Your task to perform on an android device: Go to wifi settings Image 0: 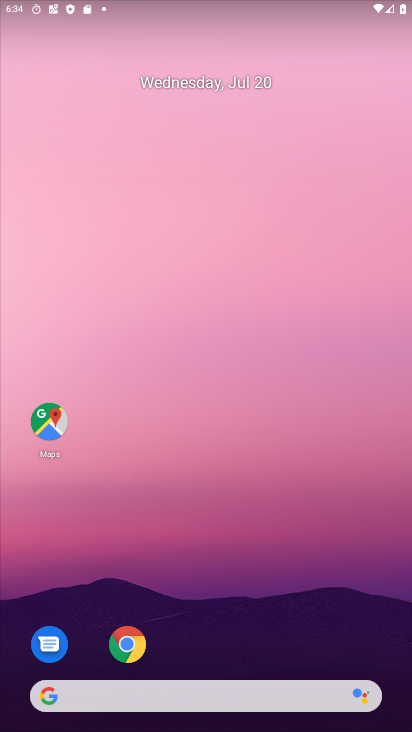
Step 0: press home button
Your task to perform on an android device: Go to wifi settings Image 1: 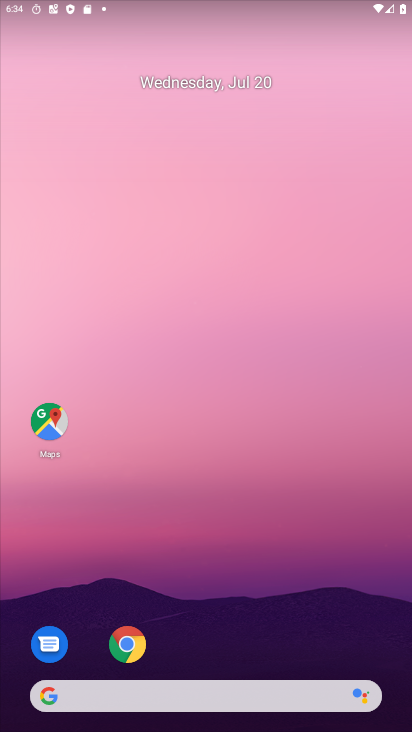
Step 1: drag from (302, 637) to (224, 258)
Your task to perform on an android device: Go to wifi settings Image 2: 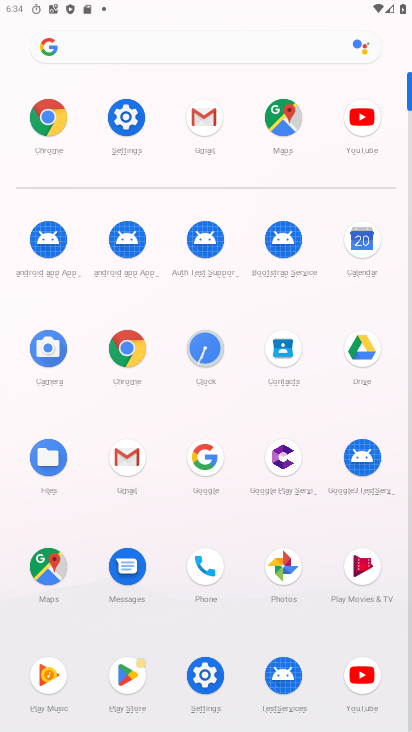
Step 2: click (119, 124)
Your task to perform on an android device: Go to wifi settings Image 3: 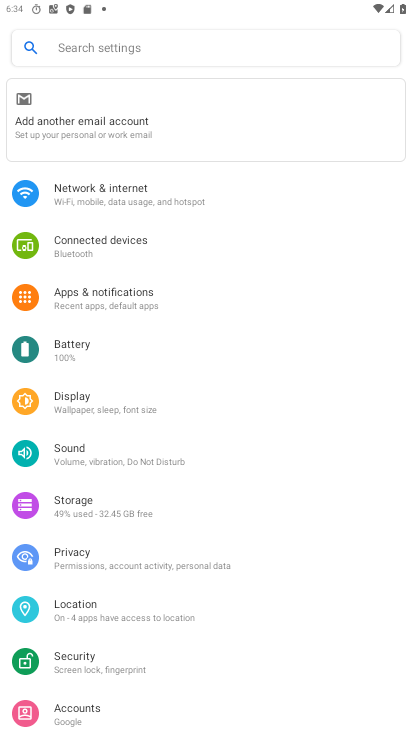
Step 3: click (116, 197)
Your task to perform on an android device: Go to wifi settings Image 4: 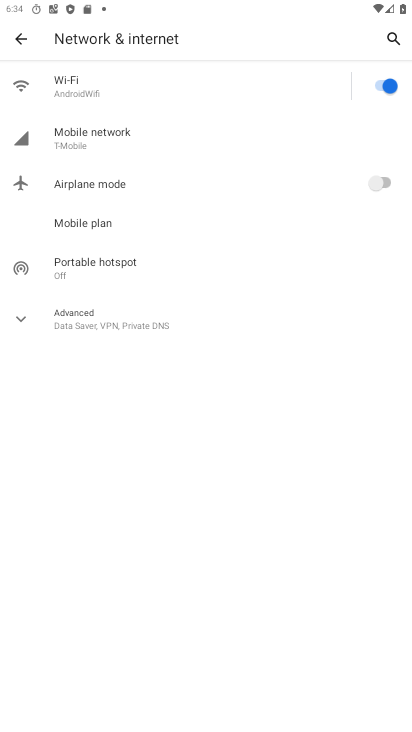
Step 4: click (91, 94)
Your task to perform on an android device: Go to wifi settings Image 5: 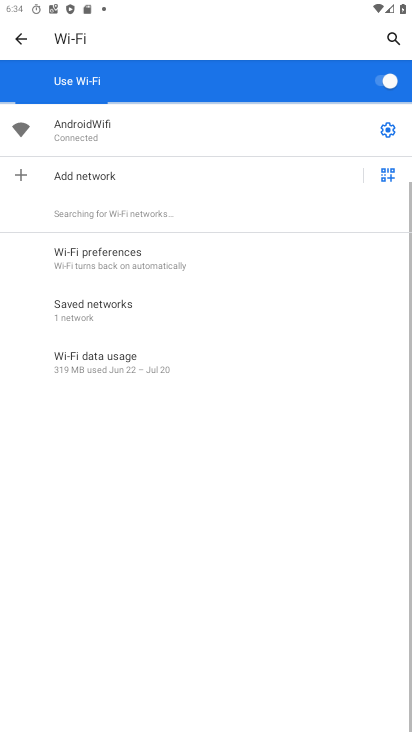
Step 5: task complete